Your task to perform on an android device: delete a single message in the gmail app Image 0: 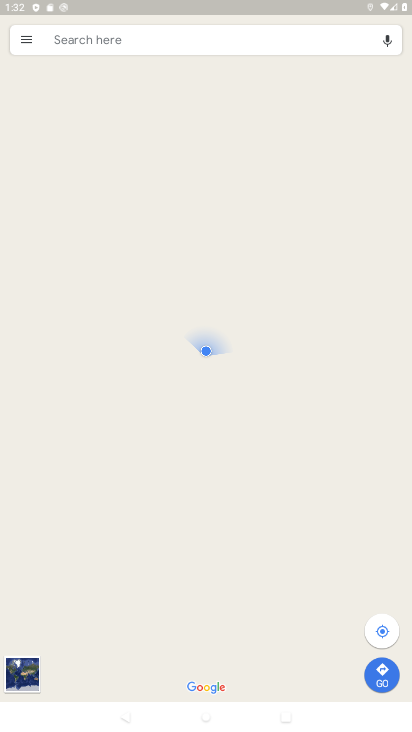
Step 0: press home button
Your task to perform on an android device: delete a single message in the gmail app Image 1: 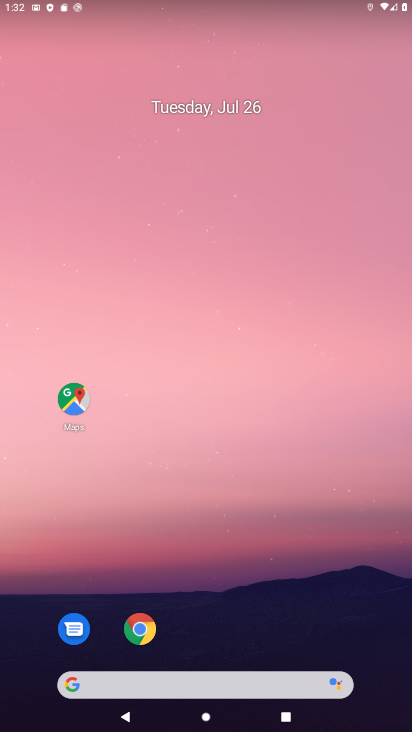
Step 1: drag from (390, 650) to (358, 195)
Your task to perform on an android device: delete a single message in the gmail app Image 2: 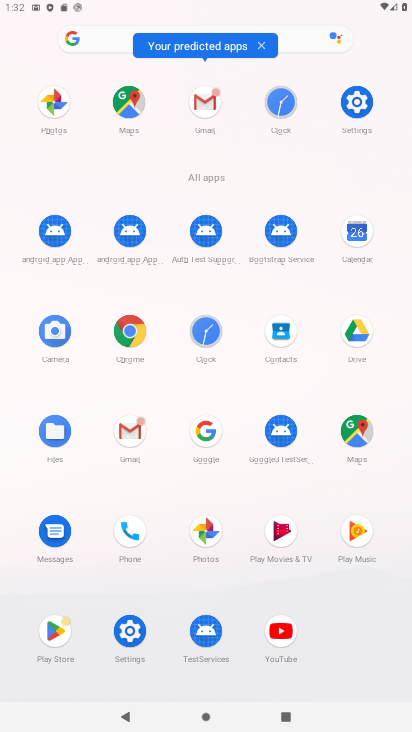
Step 2: click (127, 432)
Your task to perform on an android device: delete a single message in the gmail app Image 3: 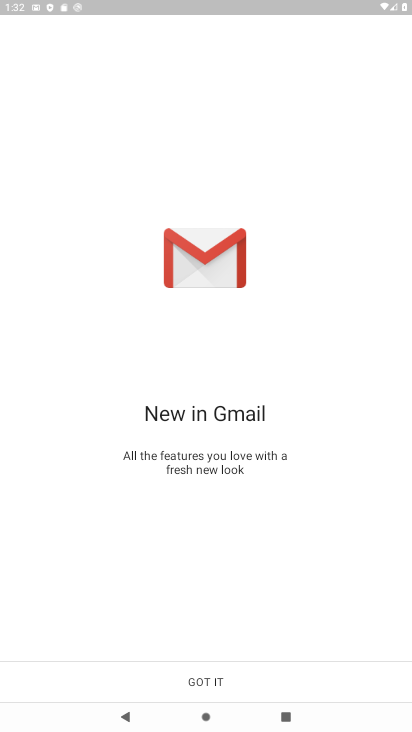
Step 3: click (213, 674)
Your task to perform on an android device: delete a single message in the gmail app Image 4: 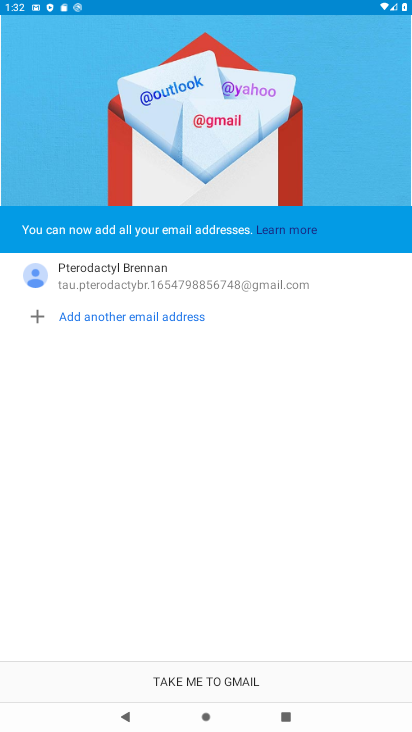
Step 4: click (213, 674)
Your task to perform on an android device: delete a single message in the gmail app Image 5: 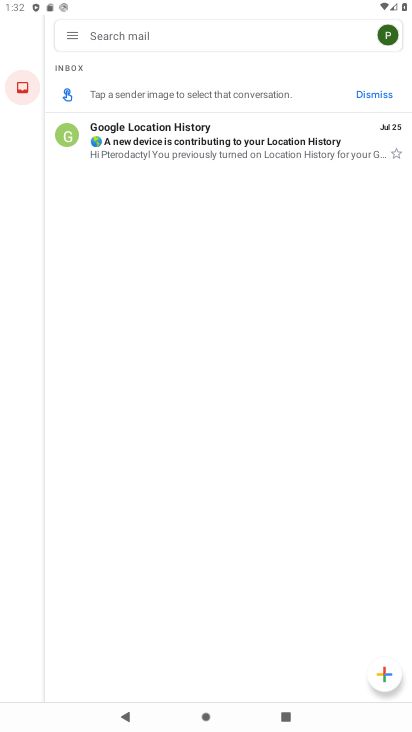
Step 5: click (75, 34)
Your task to perform on an android device: delete a single message in the gmail app Image 6: 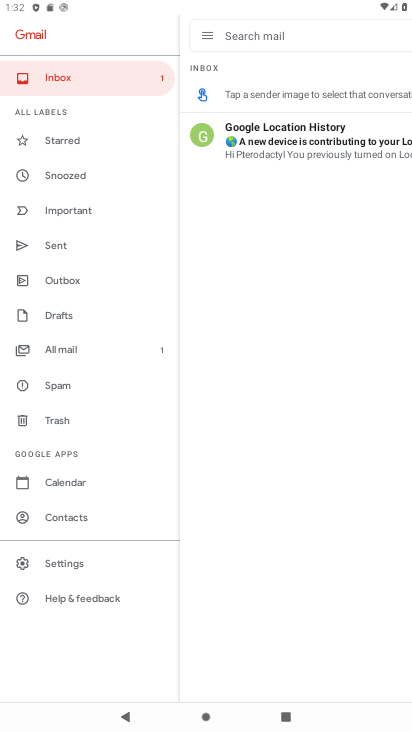
Step 6: click (62, 351)
Your task to perform on an android device: delete a single message in the gmail app Image 7: 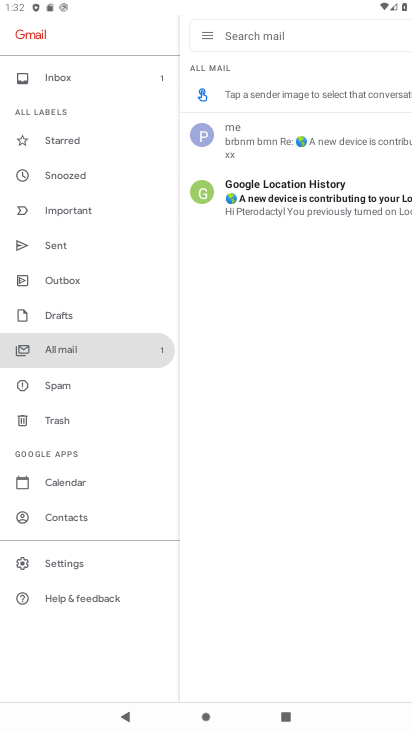
Step 7: click (292, 129)
Your task to perform on an android device: delete a single message in the gmail app Image 8: 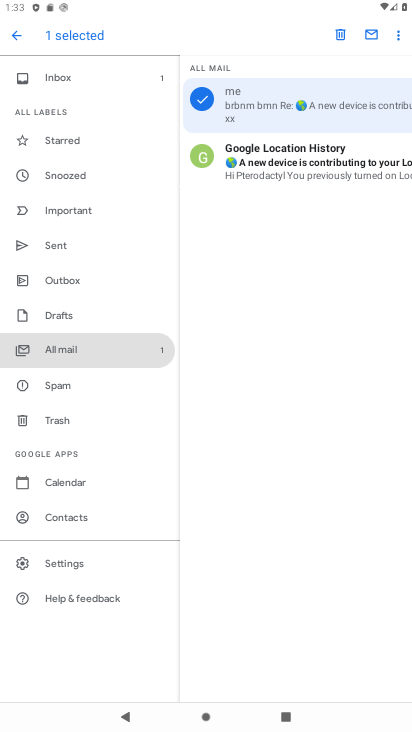
Step 8: click (337, 38)
Your task to perform on an android device: delete a single message in the gmail app Image 9: 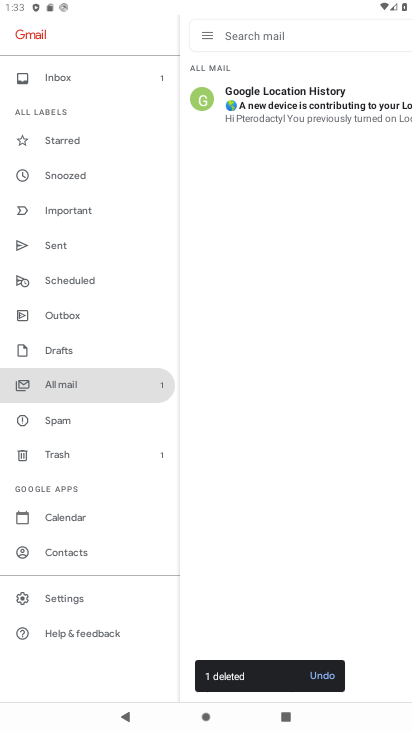
Step 9: task complete